Your task to perform on an android device: Open maps Image 0: 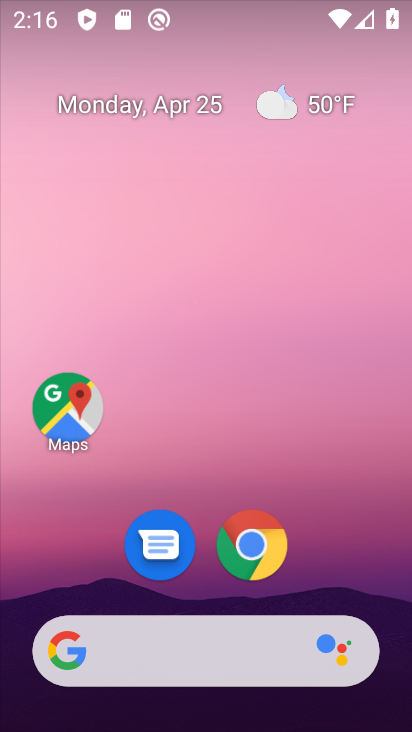
Step 0: click (66, 406)
Your task to perform on an android device: Open maps Image 1: 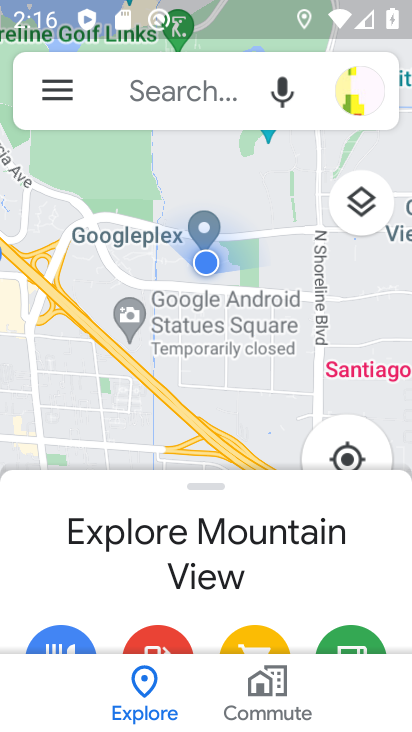
Step 1: task complete